Your task to perform on an android device: move an email to a new category in the gmail app Image 0: 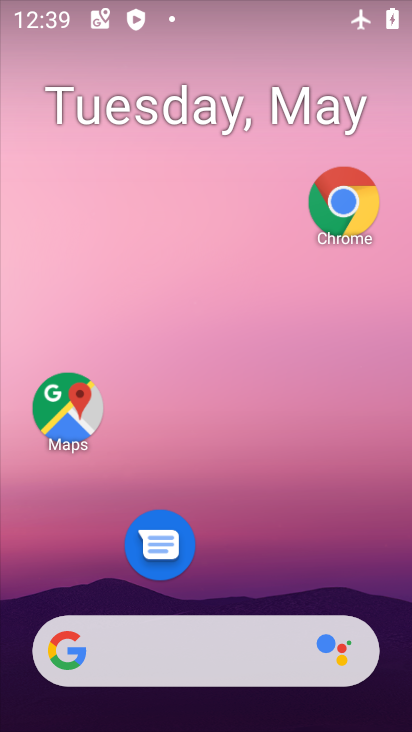
Step 0: drag from (237, 592) to (229, 60)
Your task to perform on an android device: move an email to a new category in the gmail app Image 1: 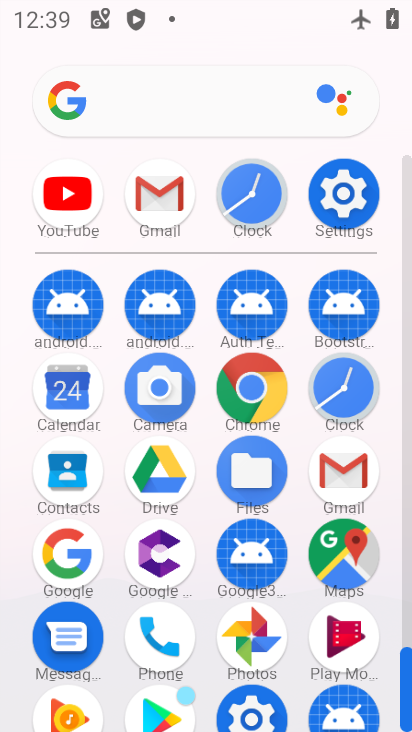
Step 1: click (344, 455)
Your task to perform on an android device: move an email to a new category in the gmail app Image 2: 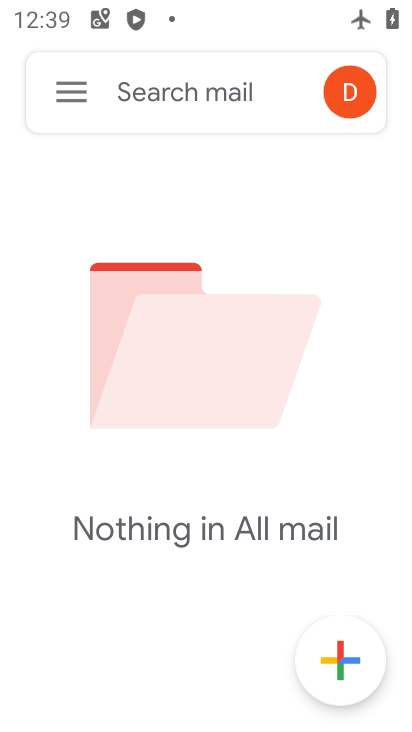
Step 2: task complete